Your task to perform on an android device: toggle notification dots Image 0: 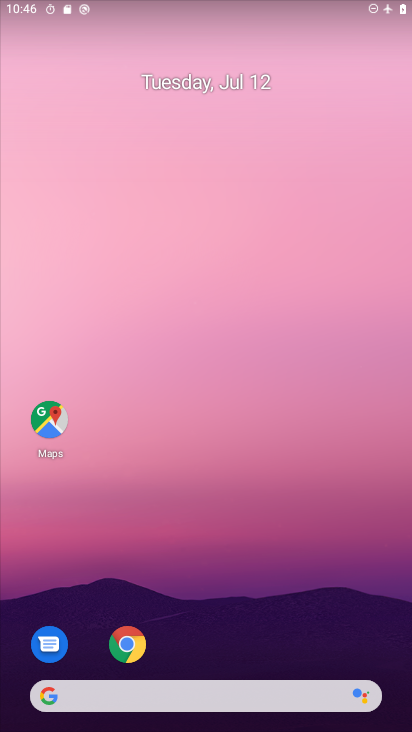
Step 0: drag from (221, 657) to (211, 166)
Your task to perform on an android device: toggle notification dots Image 1: 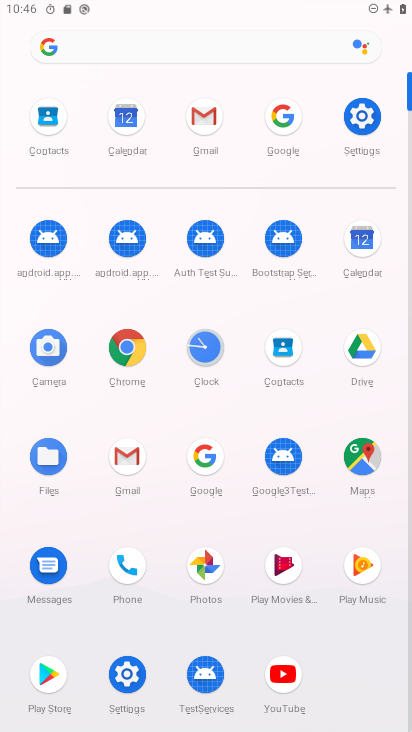
Step 1: click (367, 123)
Your task to perform on an android device: toggle notification dots Image 2: 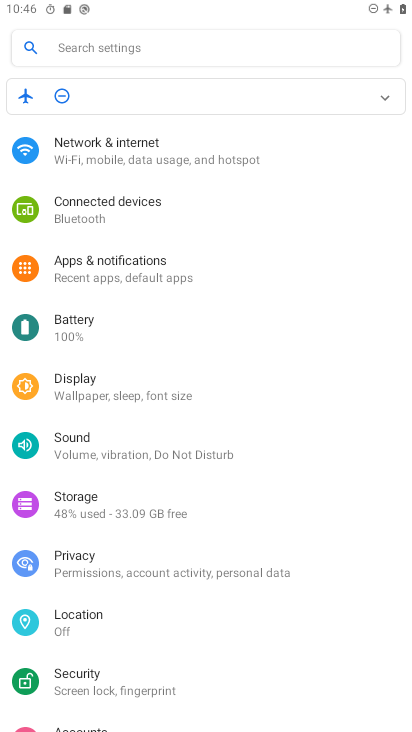
Step 2: click (204, 255)
Your task to perform on an android device: toggle notification dots Image 3: 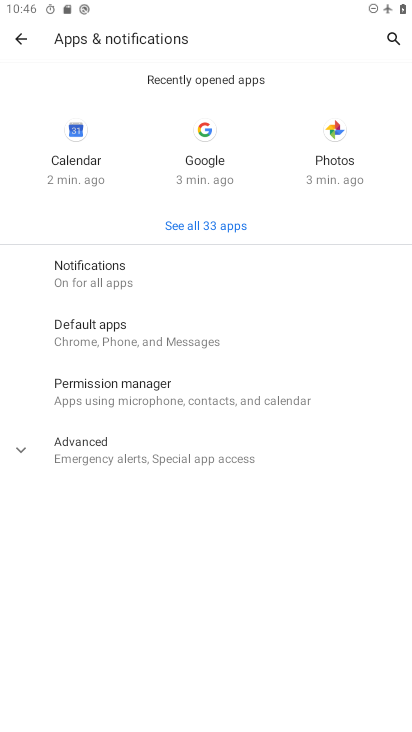
Step 3: click (135, 283)
Your task to perform on an android device: toggle notification dots Image 4: 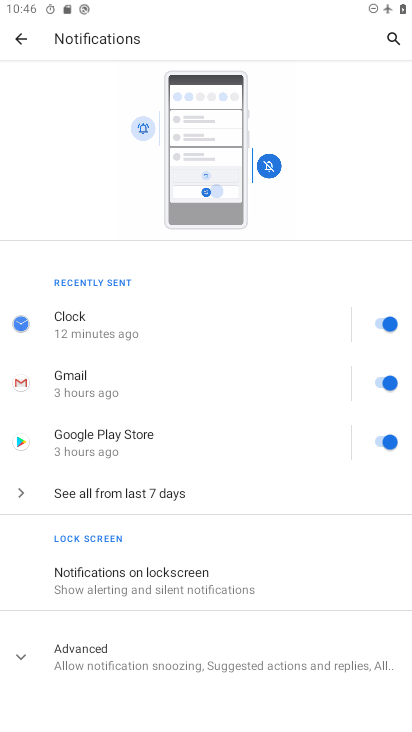
Step 4: click (188, 674)
Your task to perform on an android device: toggle notification dots Image 5: 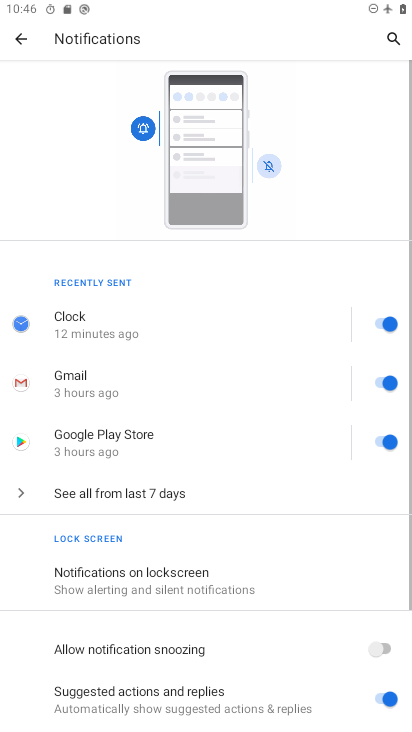
Step 5: drag from (227, 653) to (228, 326)
Your task to perform on an android device: toggle notification dots Image 6: 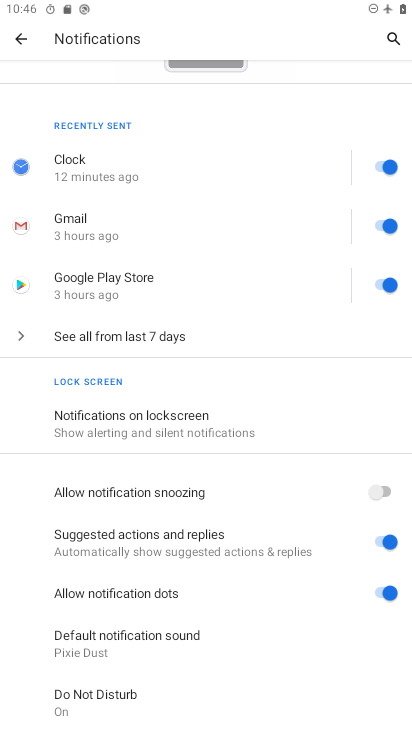
Step 6: click (378, 591)
Your task to perform on an android device: toggle notification dots Image 7: 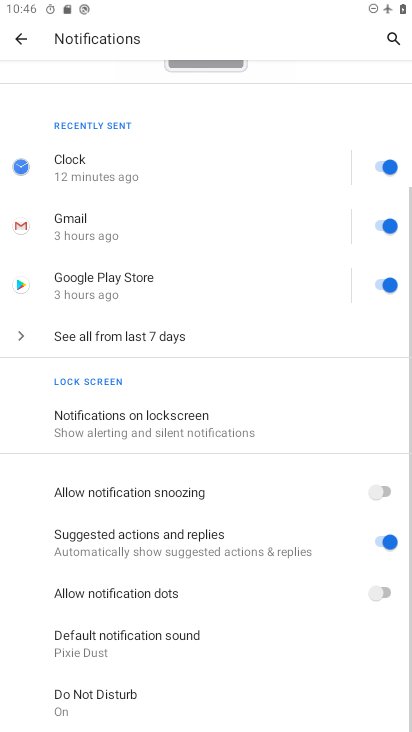
Step 7: task complete